Your task to perform on an android device: see tabs open on other devices in the chrome app Image 0: 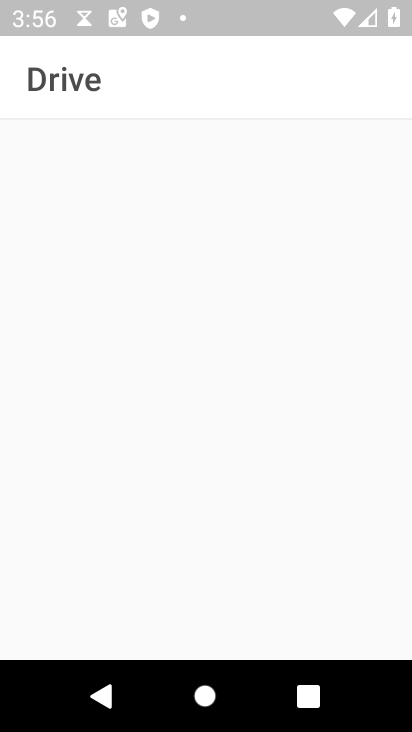
Step 0: press back button
Your task to perform on an android device: see tabs open on other devices in the chrome app Image 1: 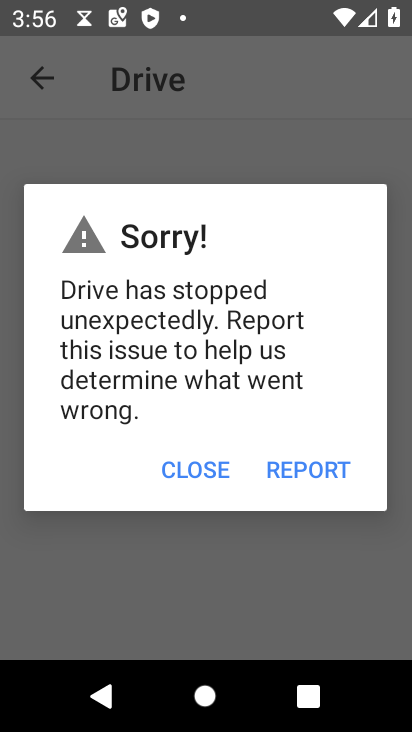
Step 1: press back button
Your task to perform on an android device: see tabs open on other devices in the chrome app Image 2: 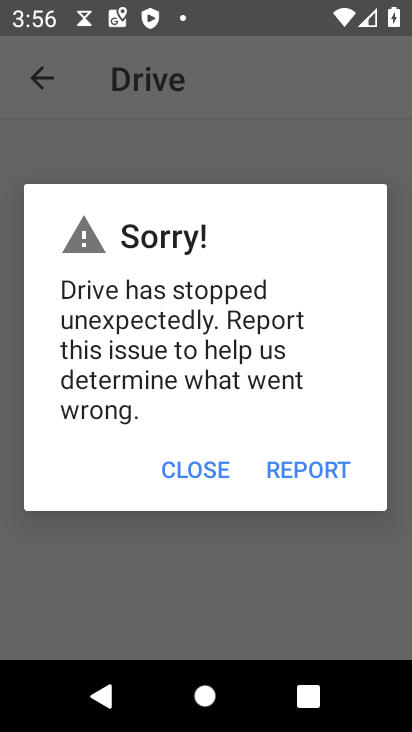
Step 2: press home button
Your task to perform on an android device: see tabs open on other devices in the chrome app Image 3: 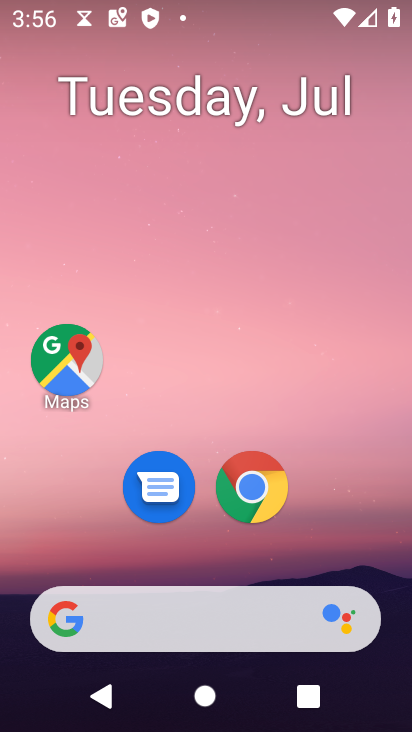
Step 3: click (262, 485)
Your task to perform on an android device: see tabs open on other devices in the chrome app Image 4: 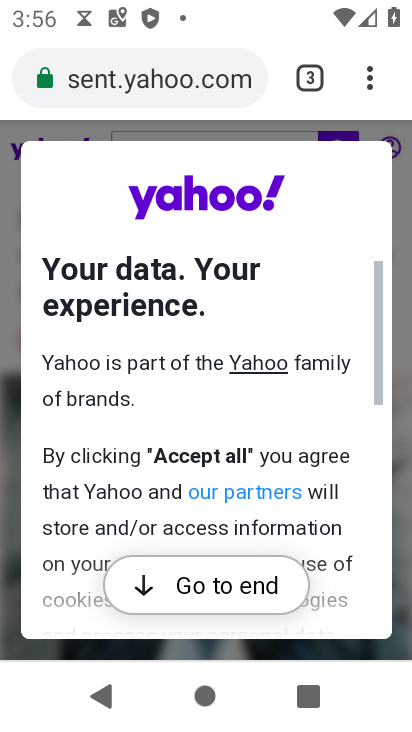
Step 4: task complete